Your task to perform on an android device: open chrome and create a bookmark for the current page Image 0: 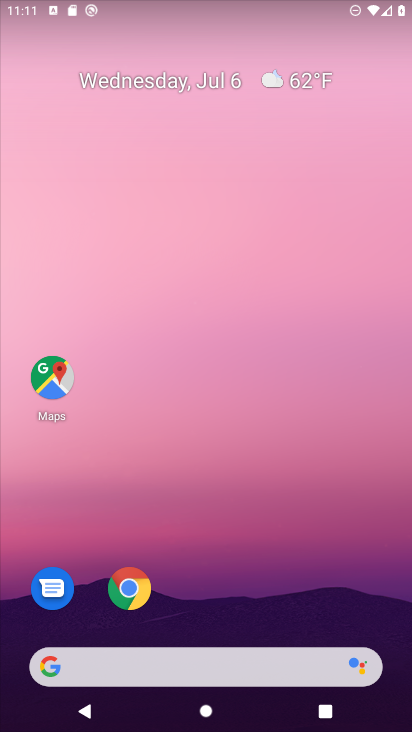
Step 0: click (130, 590)
Your task to perform on an android device: open chrome and create a bookmark for the current page Image 1: 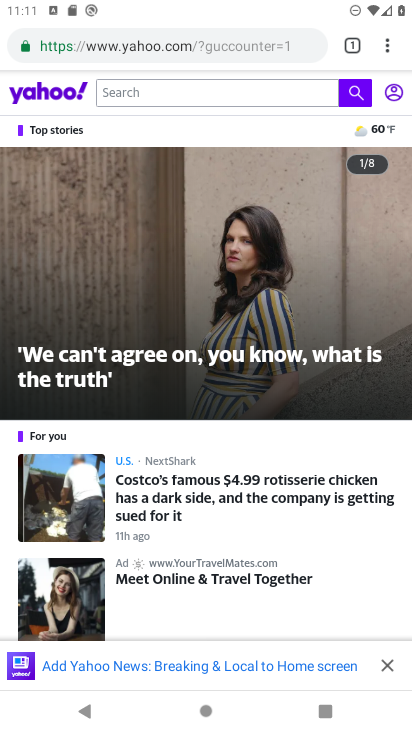
Step 1: click (387, 54)
Your task to perform on an android device: open chrome and create a bookmark for the current page Image 2: 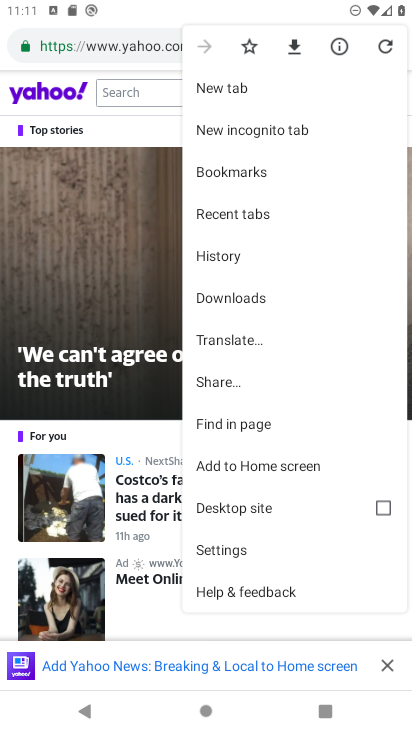
Step 2: click (246, 46)
Your task to perform on an android device: open chrome and create a bookmark for the current page Image 3: 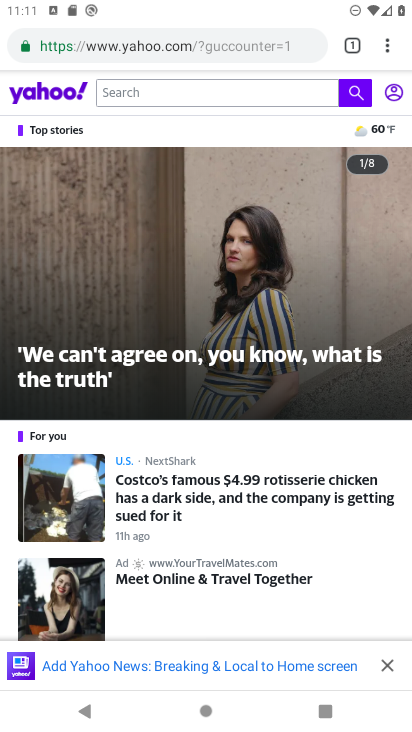
Step 3: task complete